Your task to perform on an android device: When is my next meeting? Image 0: 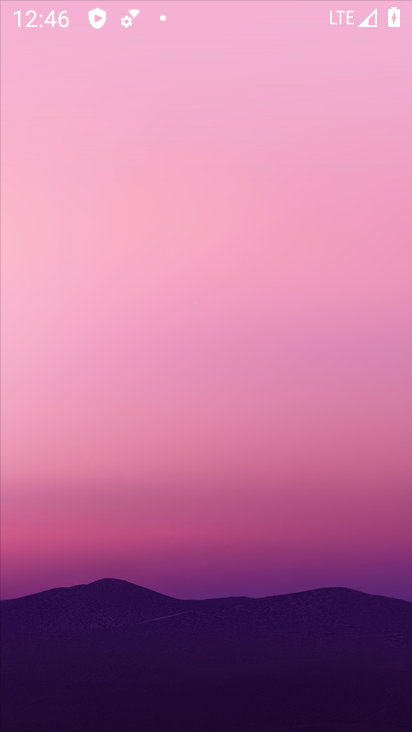
Step 0: press home button
Your task to perform on an android device: When is my next meeting? Image 1: 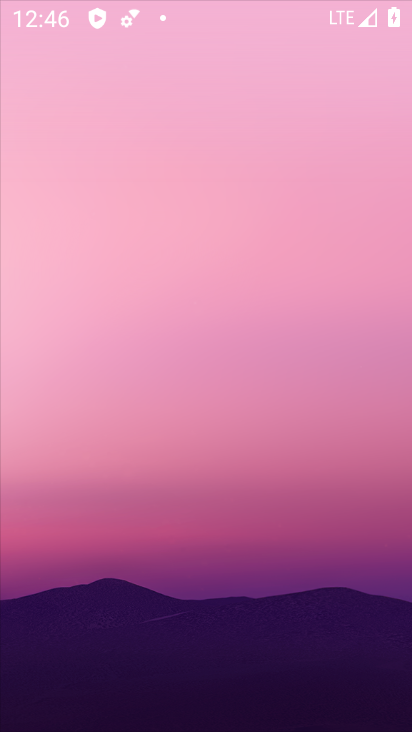
Step 1: click (375, 249)
Your task to perform on an android device: When is my next meeting? Image 2: 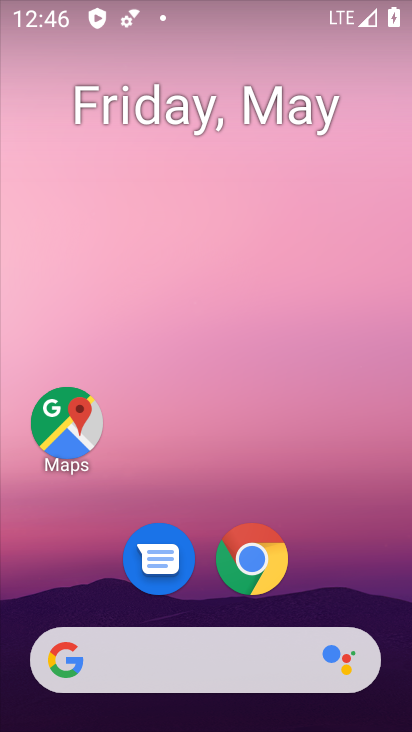
Step 2: drag from (372, 533) to (391, 166)
Your task to perform on an android device: When is my next meeting? Image 3: 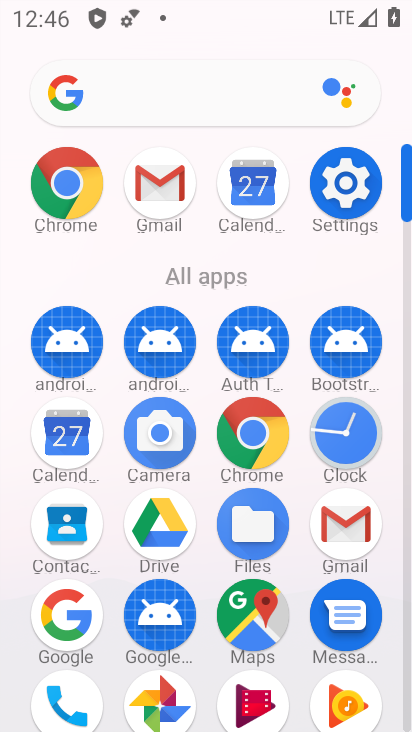
Step 3: click (80, 438)
Your task to perform on an android device: When is my next meeting? Image 4: 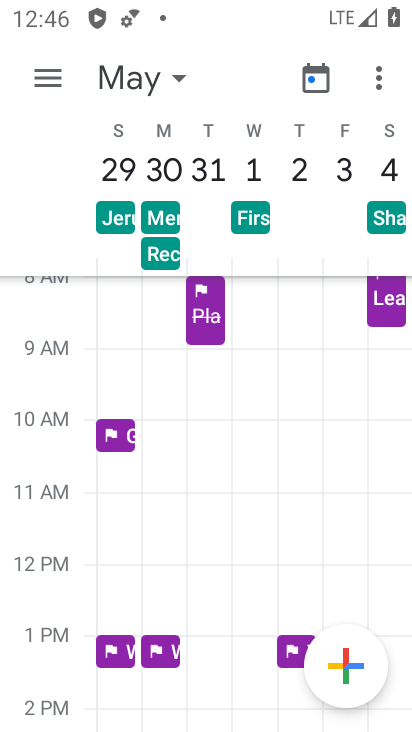
Step 4: drag from (121, 172) to (412, 160)
Your task to perform on an android device: When is my next meeting? Image 5: 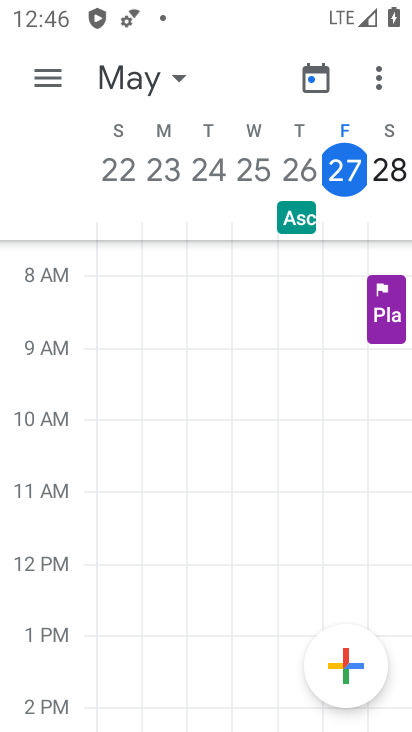
Step 5: click (396, 174)
Your task to perform on an android device: When is my next meeting? Image 6: 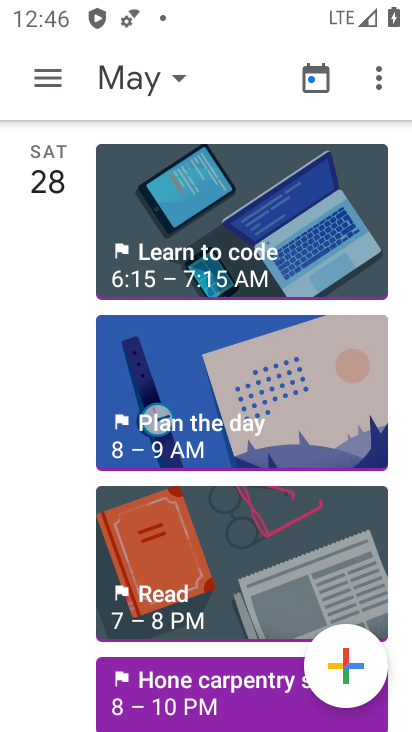
Step 6: task complete